Your task to perform on an android device: change text size in settings app Image 0: 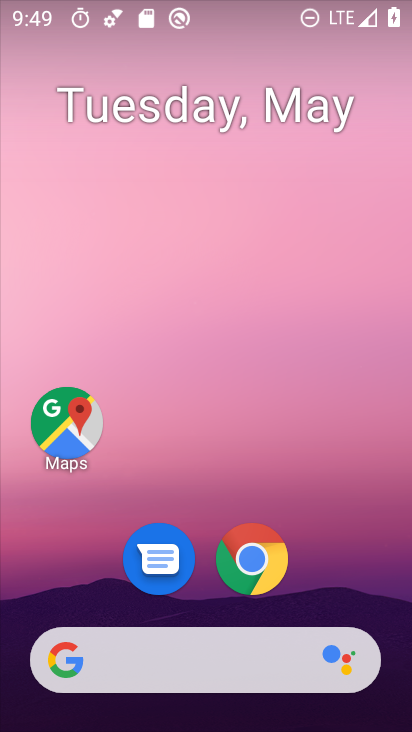
Step 0: drag from (380, 551) to (293, 62)
Your task to perform on an android device: change text size in settings app Image 1: 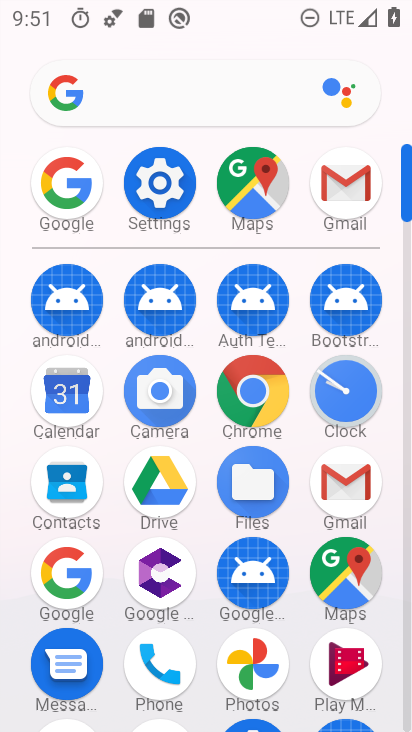
Step 1: click (146, 160)
Your task to perform on an android device: change text size in settings app Image 2: 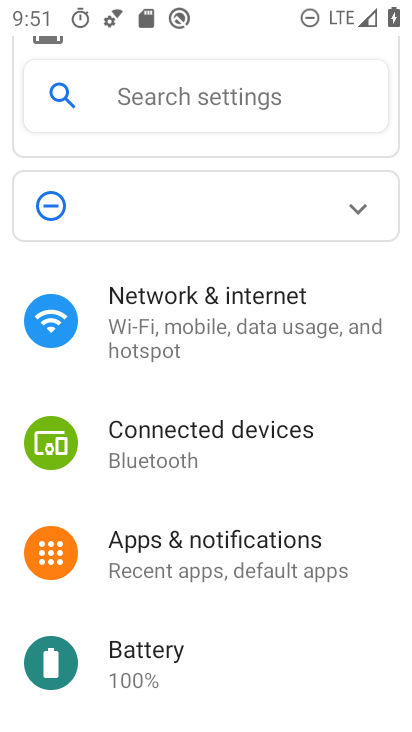
Step 2: drag from (178, 653) to (206, 304)
Your task to perform on an android device: change text size in settings app Image 3: 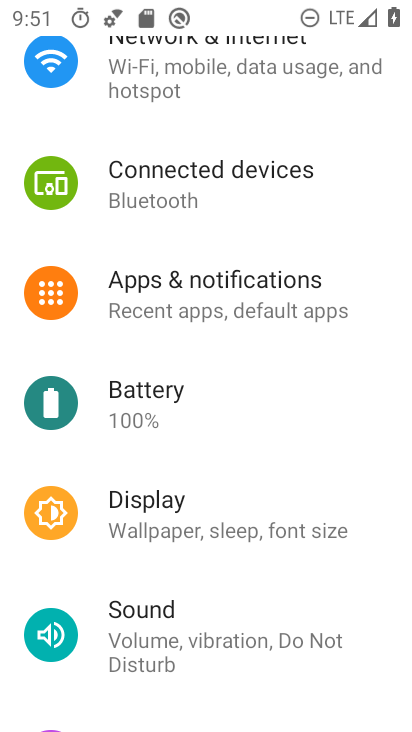
Step 3: click (206, 512)
Your task to perform on an android device: change text size in settings app Image 4: 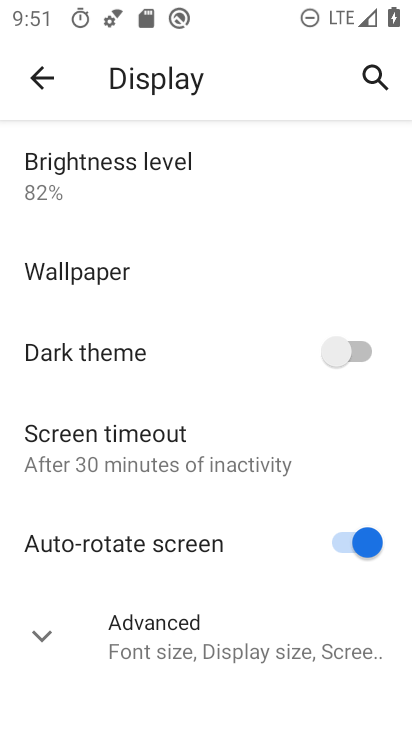
Step 4: click (81, 632)
Your task to perform on an android device: change text size in settings app Image 5: 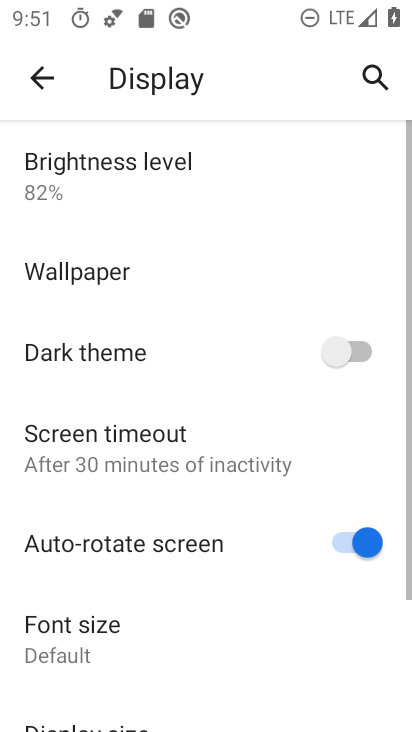
Step 5: drag from (106, 648) to (192, 288)
Your task to perform on an android device: change text size in settings app Image 6: 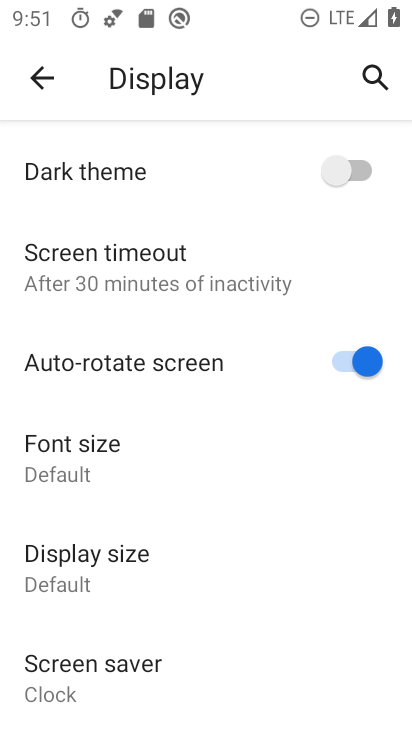
Step 6: click (98, 440)
Your task to perform on an android device: change text size in settings app Image 7: 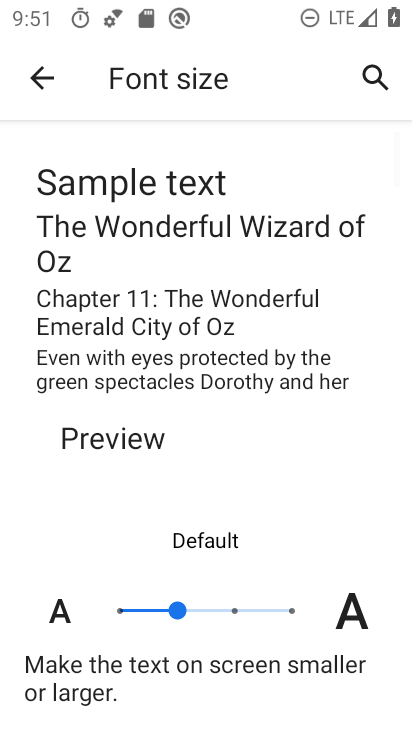
Step 7: click (234, 600)
Your task to perform on an android device: change text size in settings app Image 8: 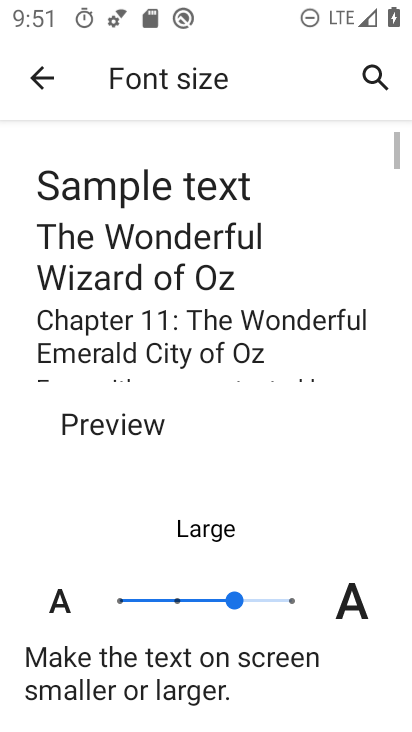
Step 8: task complete